Your task to perform on an android device: Go to Google maps Image 0: 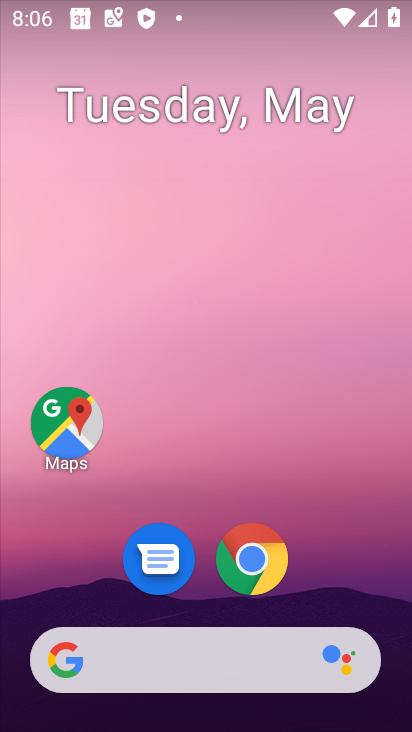
Step 0: click (80, 414)
Your task to perform on an android device: Go to Google maps Image 1: 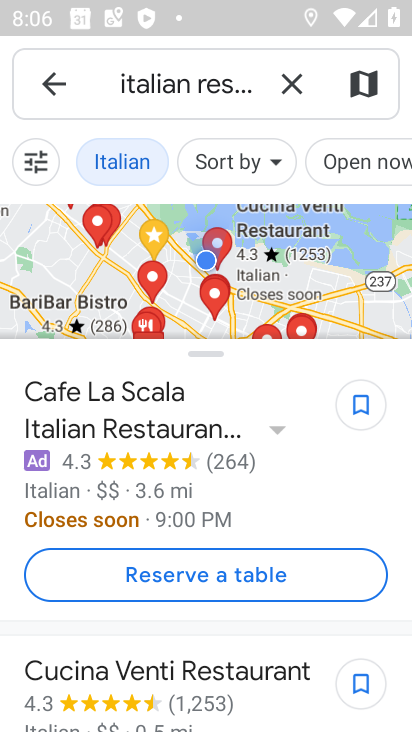
Step 1: task complete